Your task to perform on an android device: toggle airplane mode Image 0: 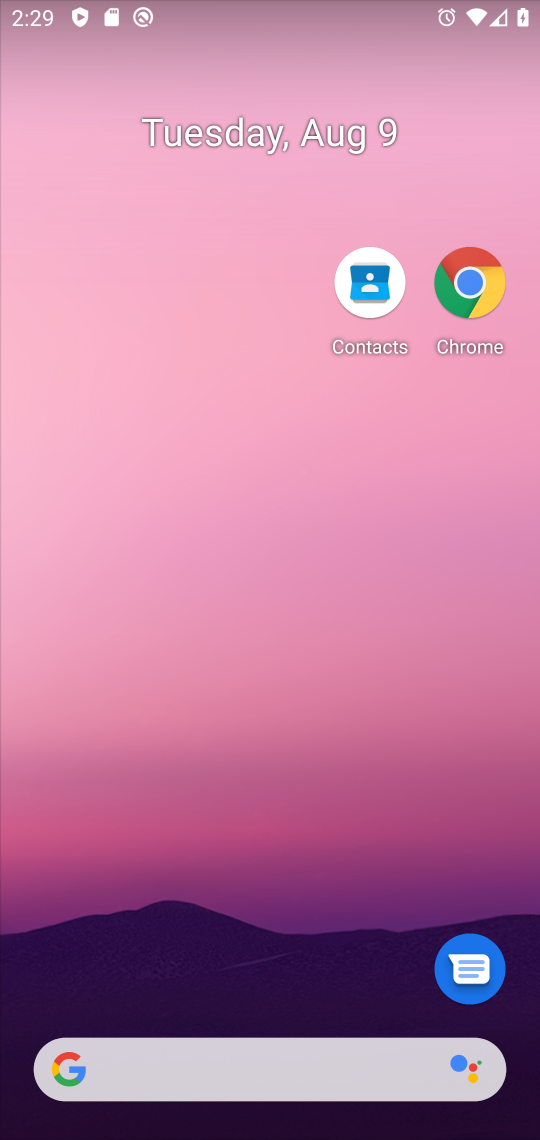
Step 0: drag from (265, 981) to (317, 44)
Your task to perform on an android device: toggle airplane mode Image 1: 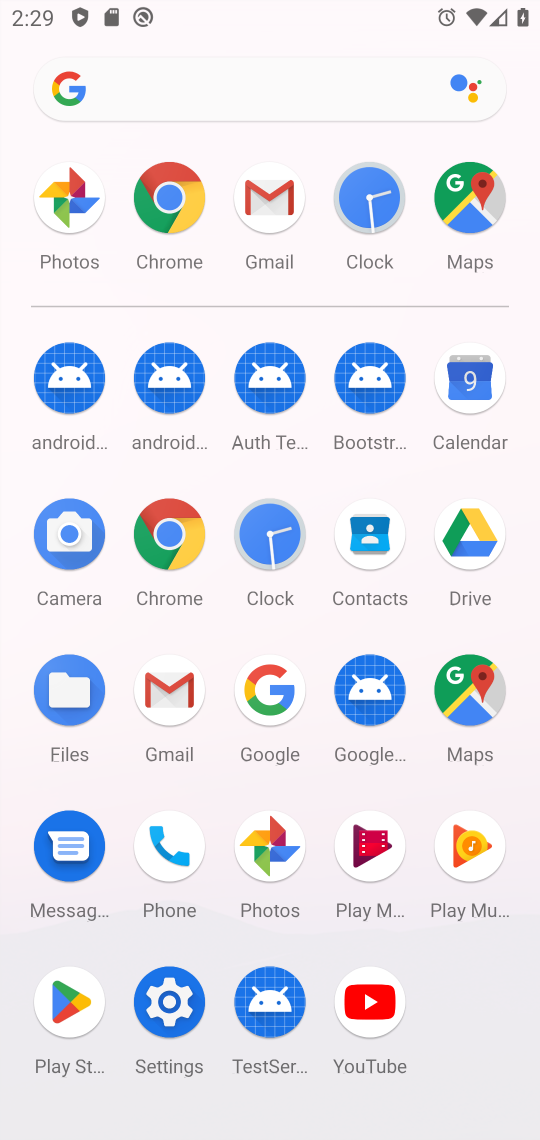
Step 1: click (185, 988)
Your task to perform on an android device: toggle airplane mode Image 2: 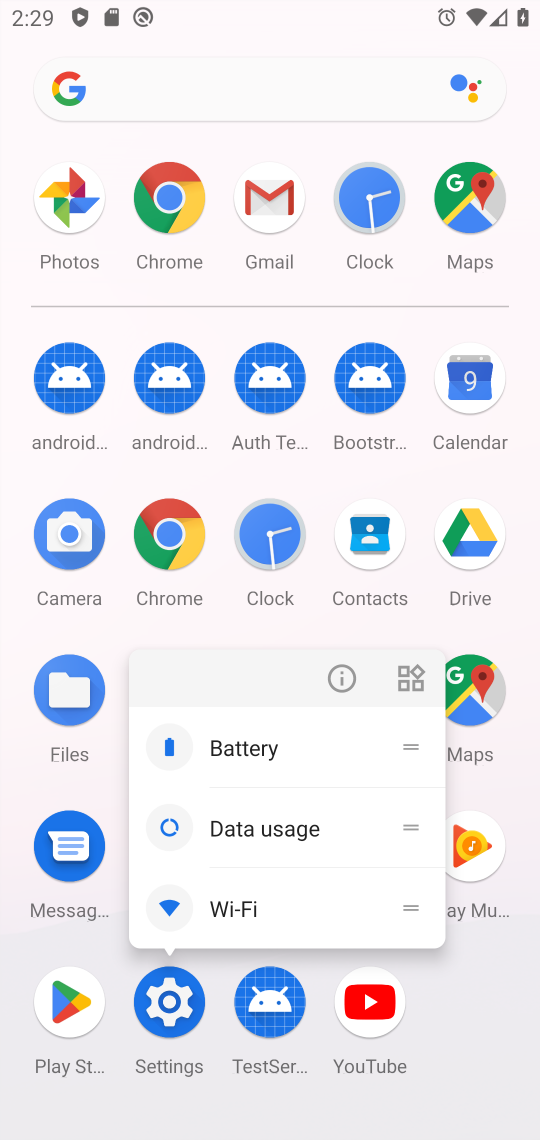
Step 2: click (341, 694)
Your task to perform on an android device: toggle airplane mode Image 3: 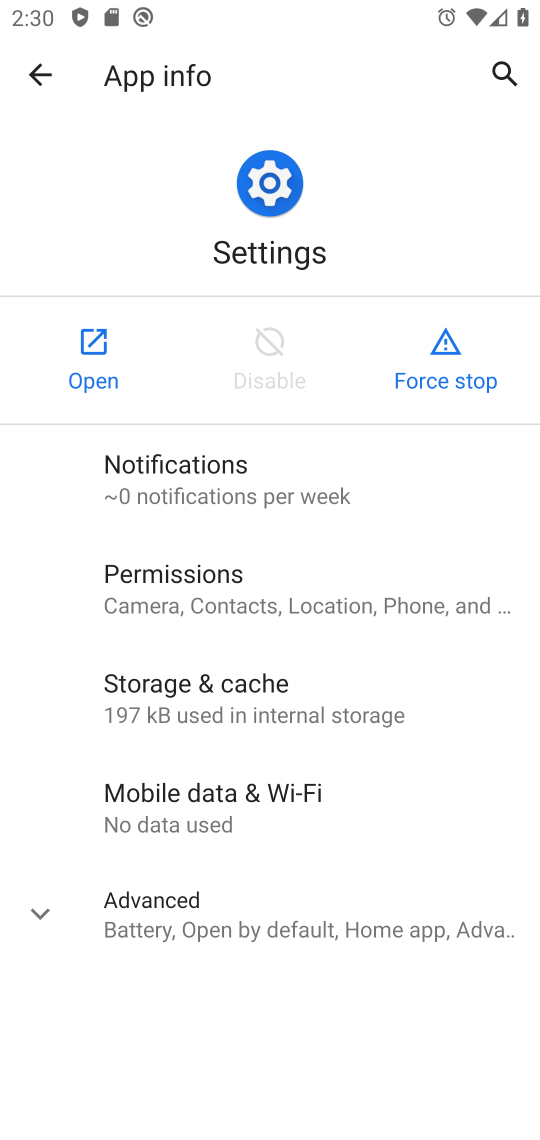
Step 3: click (111, 373)
Your task to perform on an android device: toggle airplane mode Image 4: 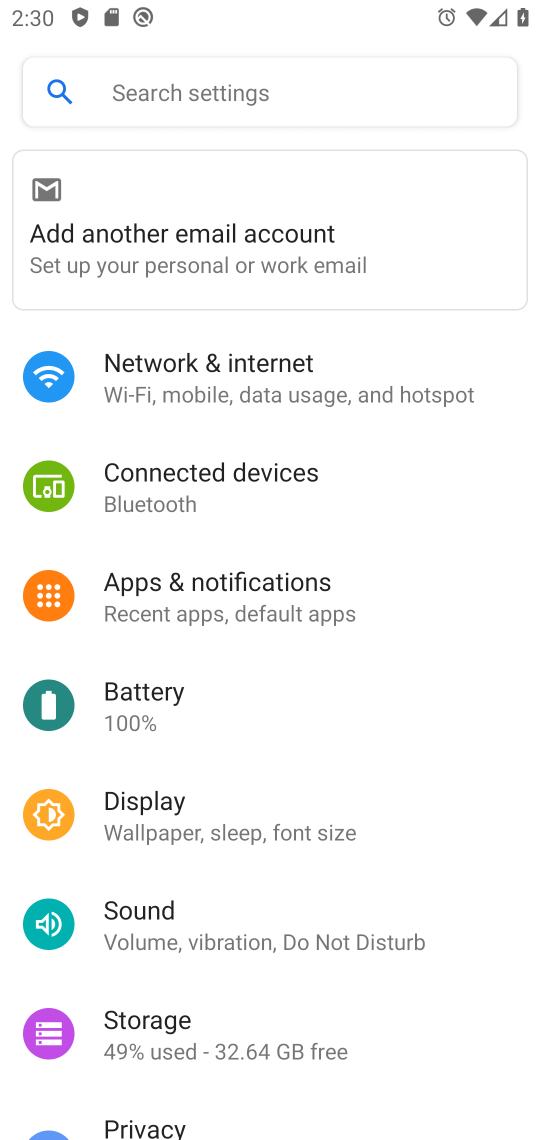
Step 4: drag from (324, 955) to (259, 359)
Your task to perform on an android device: toggle airplane mode Image 5: 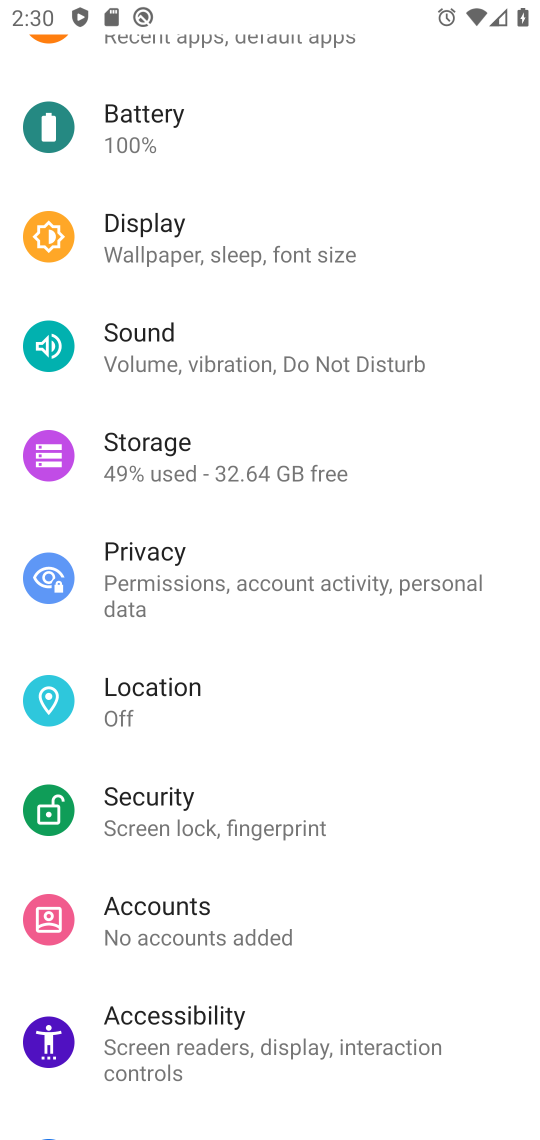
Step 5: drag from (328, 967) to (321, 477)
Your task to perform on an android device: toggle airplane mode Image 6: 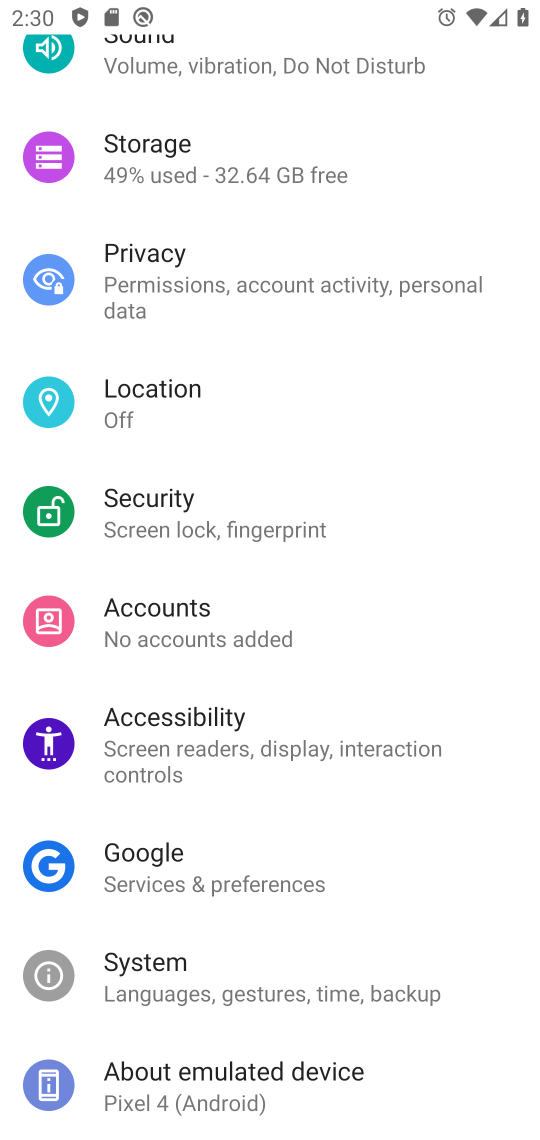
Step 6: drag from (327, 555) to (384, 1139)
Your task to perform on an android device: toggle airplane mode Image 7: 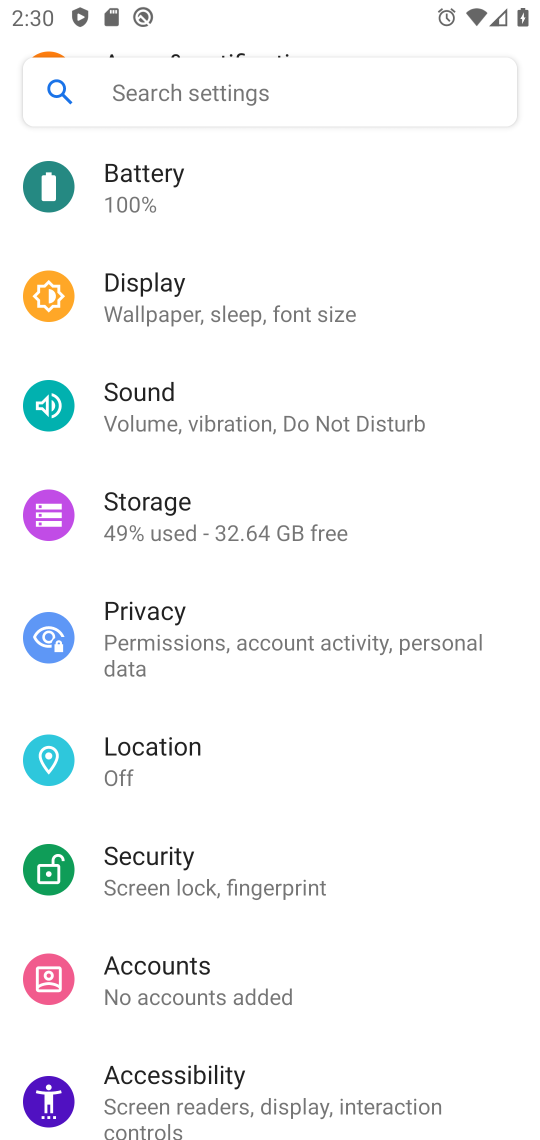
Step 7: drag from (245, 215) to (357, 951)
Your task to perform on an android device: toggle airplane mode Image 8: 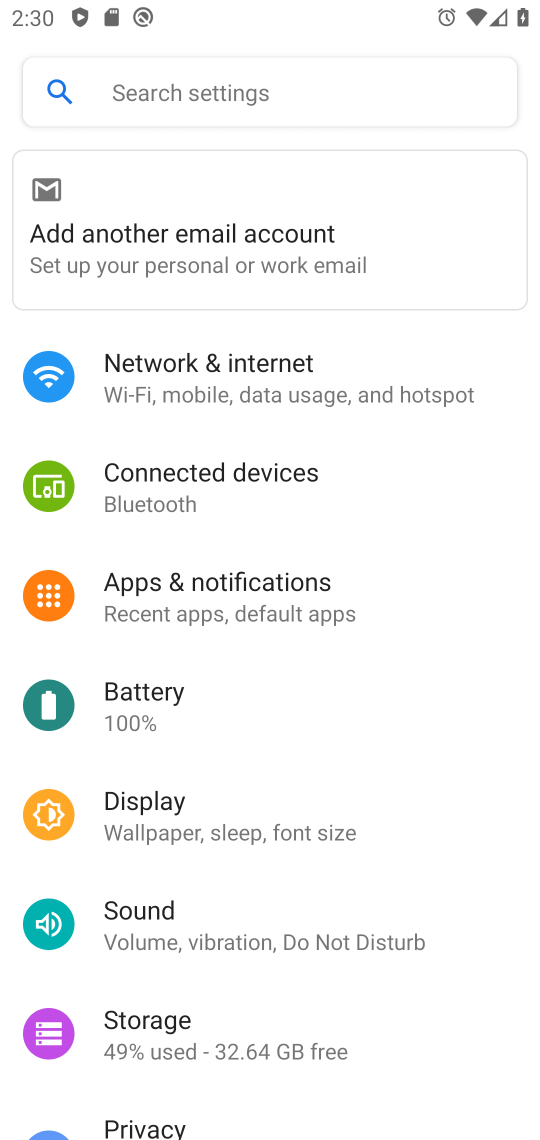
Step 8: click (232, 373)
Your task to perform on an android device: toggle airplane mode Image 9: 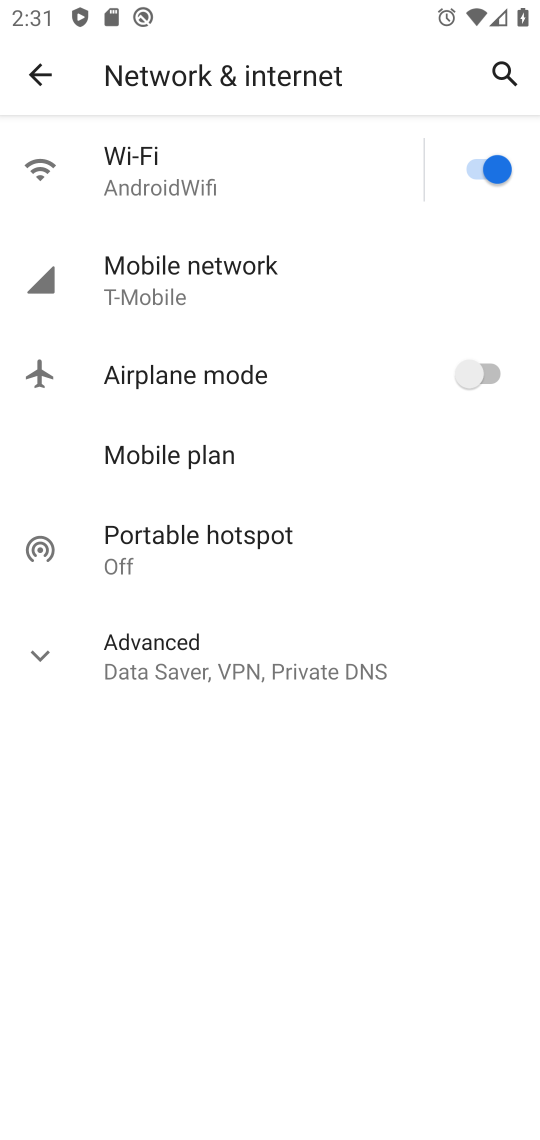
Step 9: click (275, 385)
Your task to perform on an android device: toggle airplane mode Image 10: 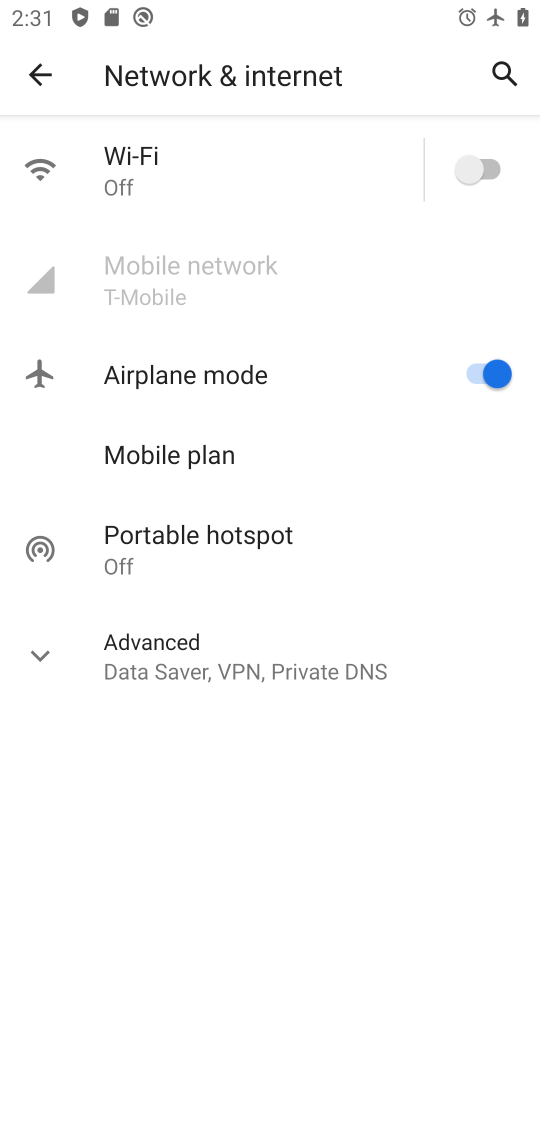
Step 10: task complete